Your task to perform on an android device: turn off location Image 0: 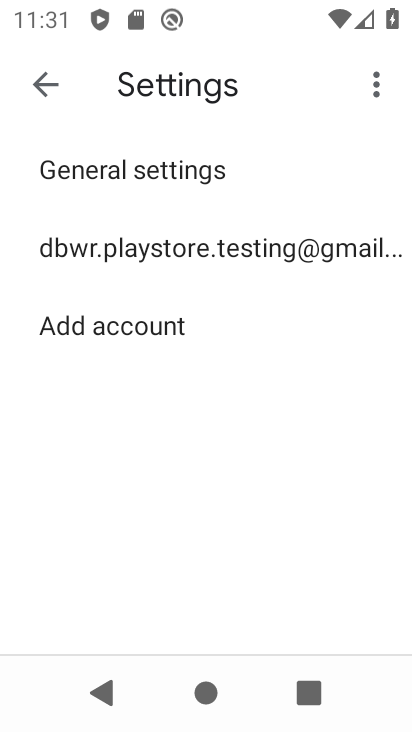
Step 0: press back button
Your task to perform on an android device: turn off location Image 1: 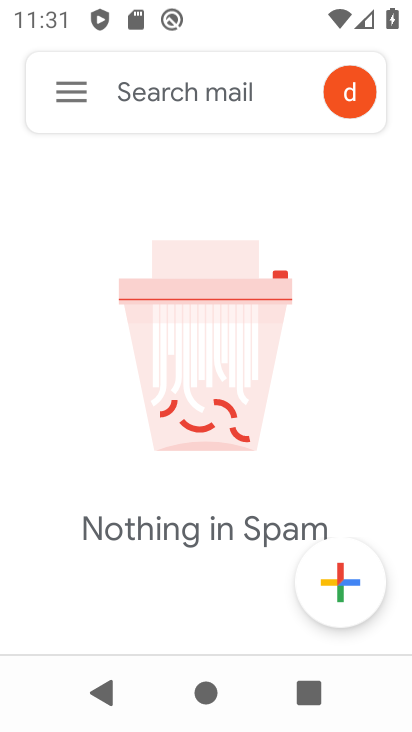
Step 1: press back button
Your task to perform on an android device: turn off location Image 2: 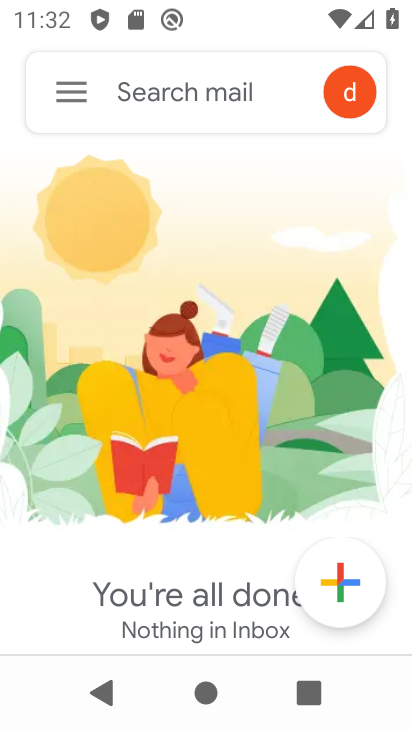
Step 2: press back button
Your task to perform on an android device: turn off location Image 3: 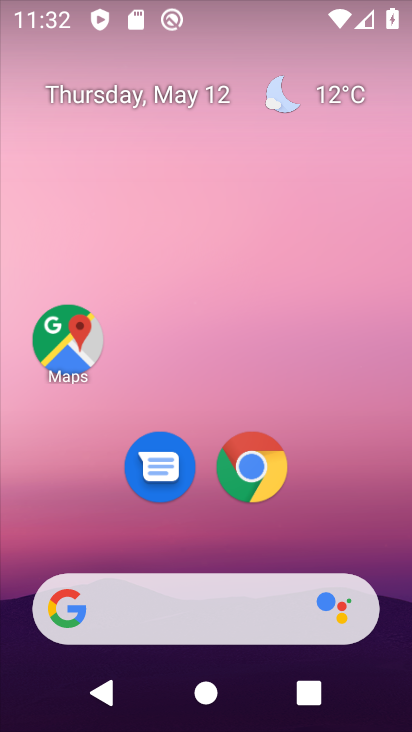
Step 3: drag from (349, 476) to (269, 0)
Your task to perform on an android device: turn off location Image 4: 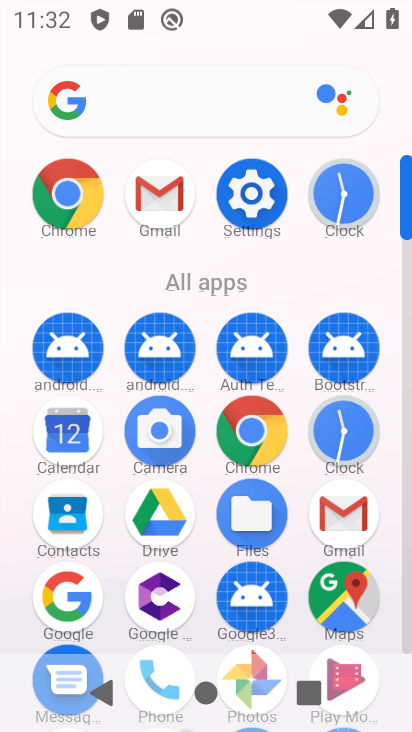
Step 4: drag from (3, 591) to (13, 282)
Your task to perform on an android device: turn off location Image 5: 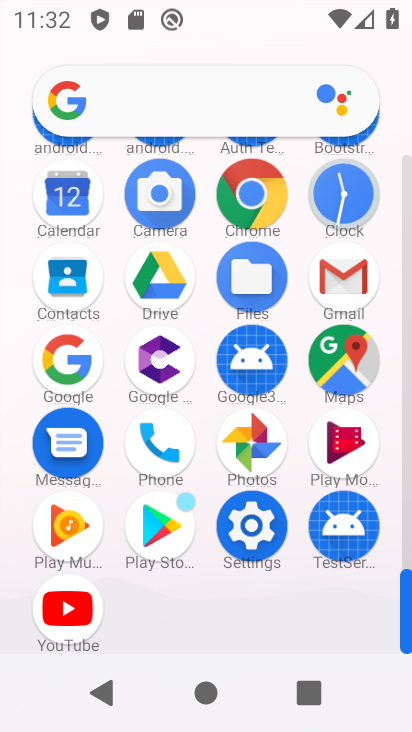
Step 5: click (249, 525)
Your task to perform on an android device: turn off location Image 6: 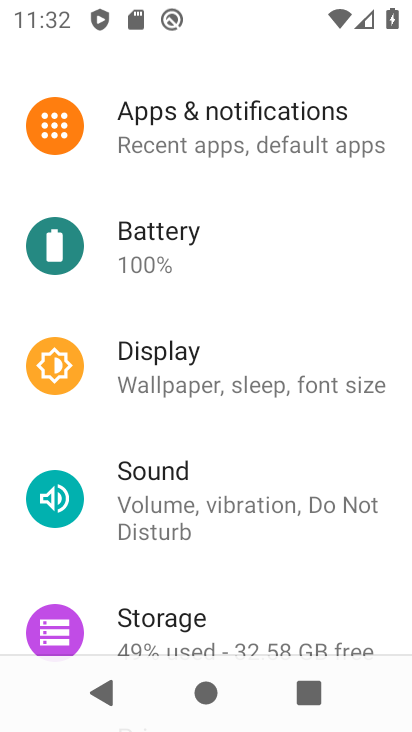
Step 6: drag from (268, 482) to (268, 189)
Your task to perform on an android device: turn off location Image 7: 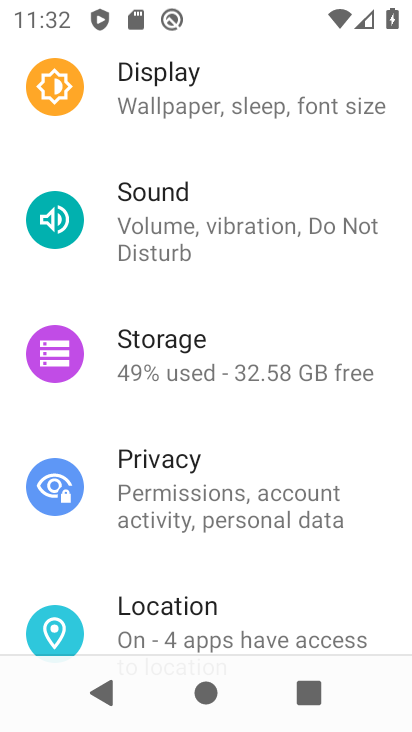
Step 7: click (171, 603)
Your task to perform on an android device: turn off location Image 8: 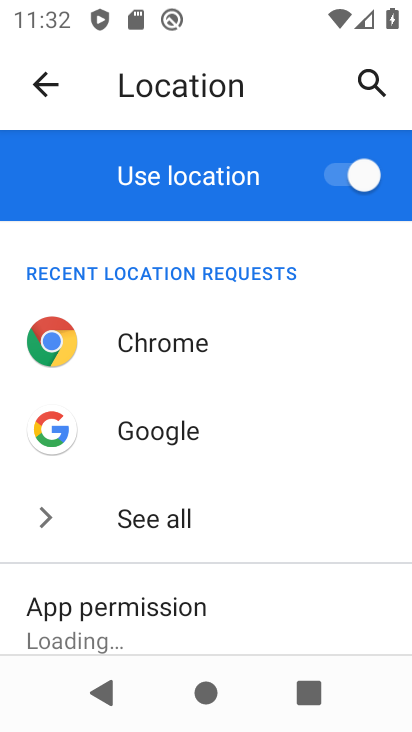
Step 8: drag from (201, 563) to (195, 169)
Your task to perform on an android device: turn off location Image 9: 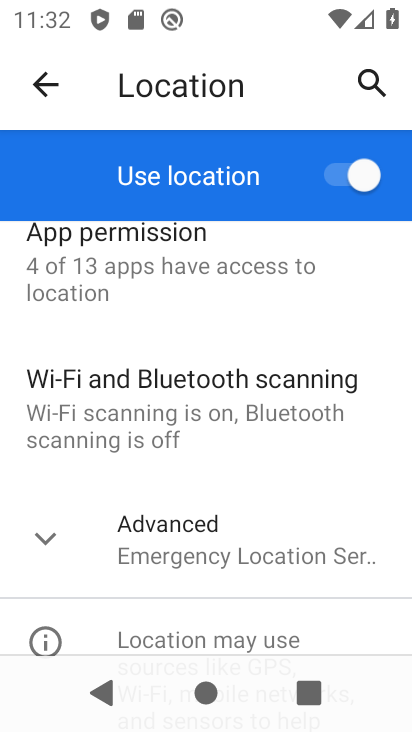
Step 9: click (339, 170)
Your task to perform on an android device: turn off location Image 10: 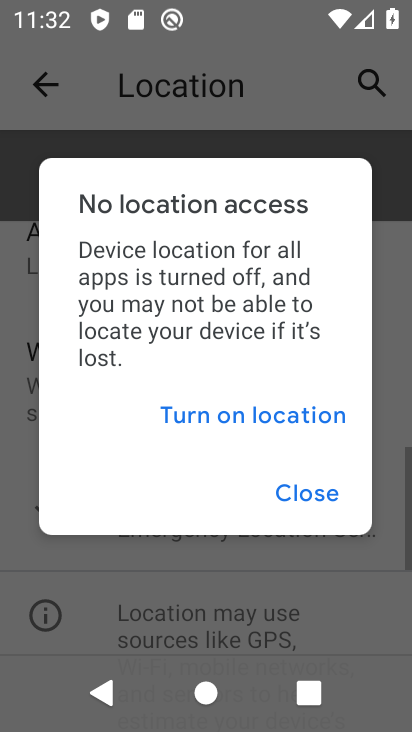
Step 10: task complete